Your task to perform on an android device: turn on javascript in the chrome app Image 0: 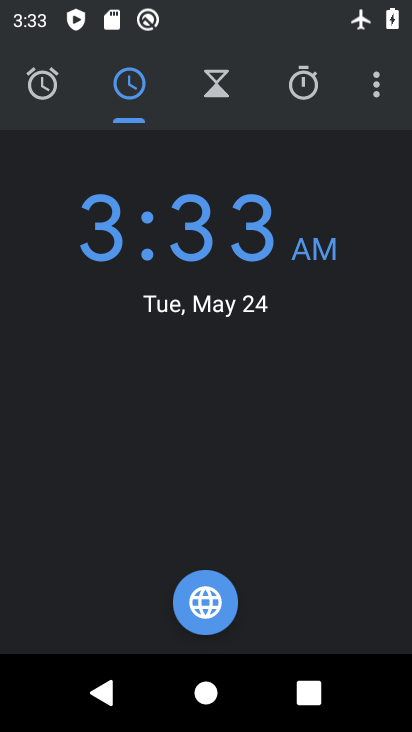
Step 0: press home button
Your task to perform on an android device: turn on javascript in the chrome app Image 1: 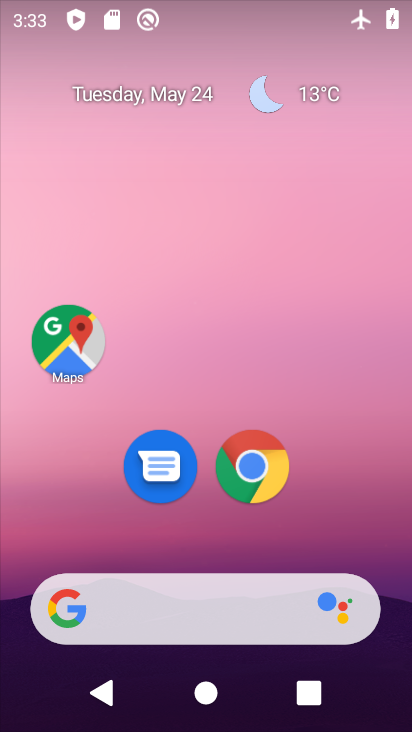
Step 1: click (256, 460)
Your task to perform on an android device: turn on javascript in the chrome app Image 2: 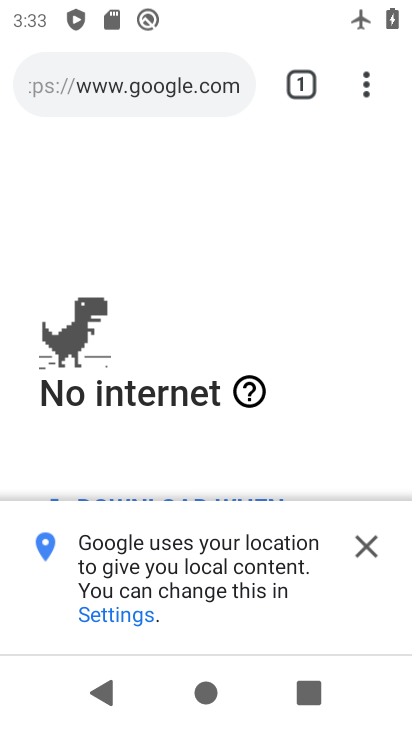
Step 2: click (364, 91)
Your task to perform on an android device: turn on javascript in the chrome app Image 3: 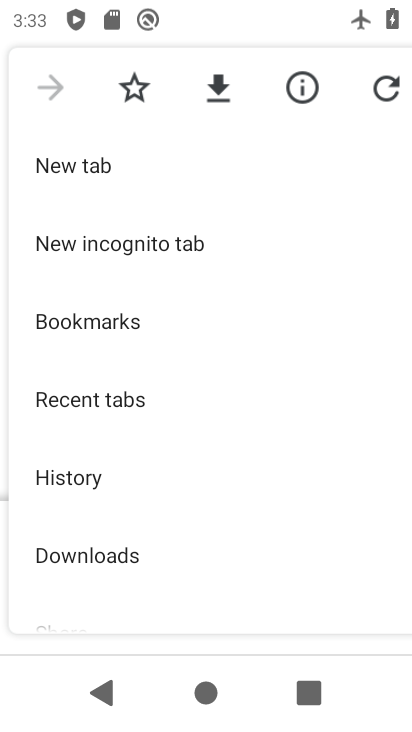
Step 3: drag from (220, 503) to (227, 43)
Your task to perform on an android device: turn on javascript in the chrome app Image 4: 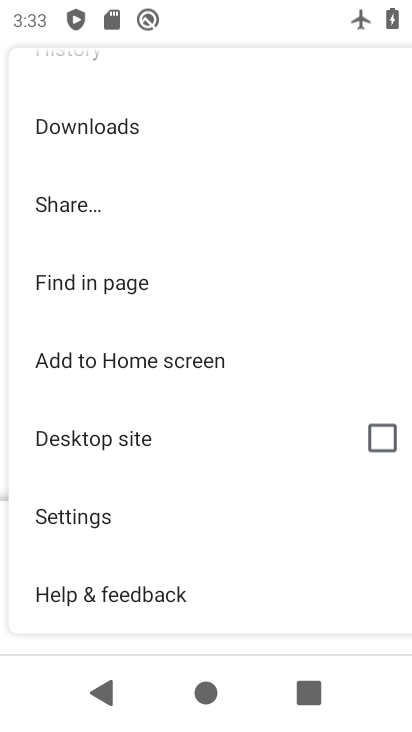
Step 4: click (127, 524)
Your task to perform on an android device: turn on javascript in the chrome app Image 5: 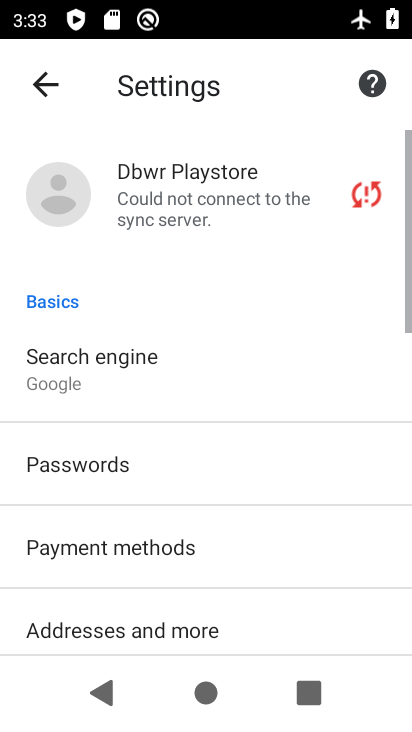
Step 5: drag from (226, 603) to (246, 199)
Your task to perform on an android device: turn on javascript in the chrome app Image 6: 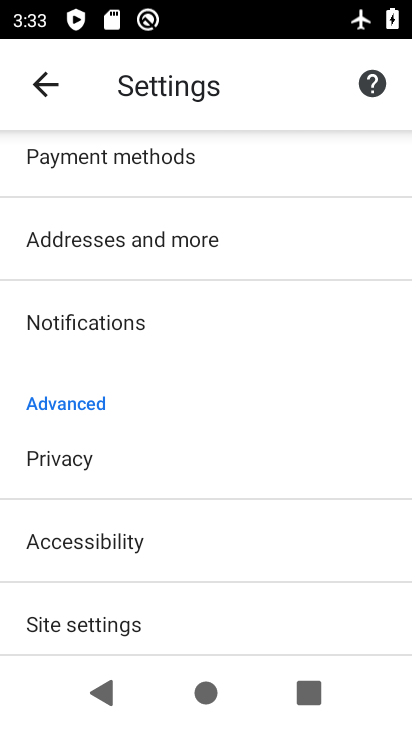
Step 6: click (125, 626)
Your task to perform on an android device: turn on javascript in the chrome app Image 7: 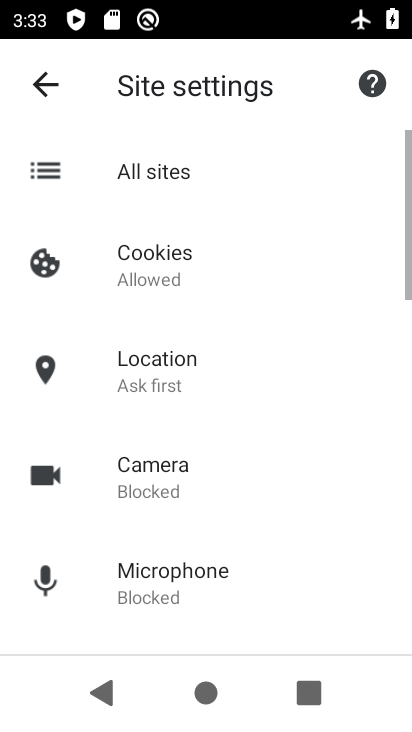
Step 7: drag from (170, 559) to (222, 283)
Your task to perform on an android device: turn on javascript in the chrome app Image 8: 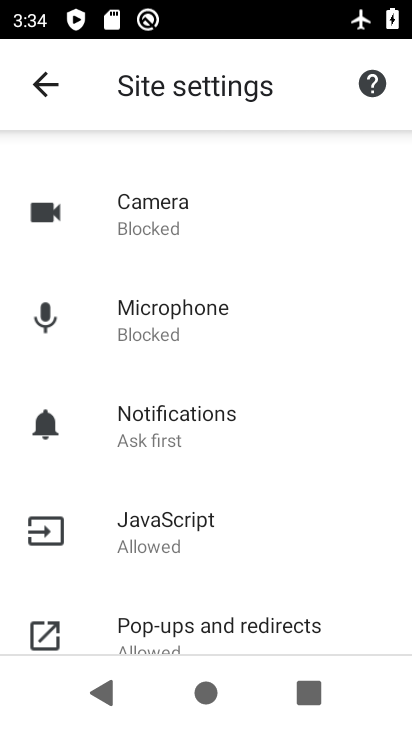
Step 8: click (165, 562)
Your task to perform on an android device: turn on javascript in the chrome app Image 9: 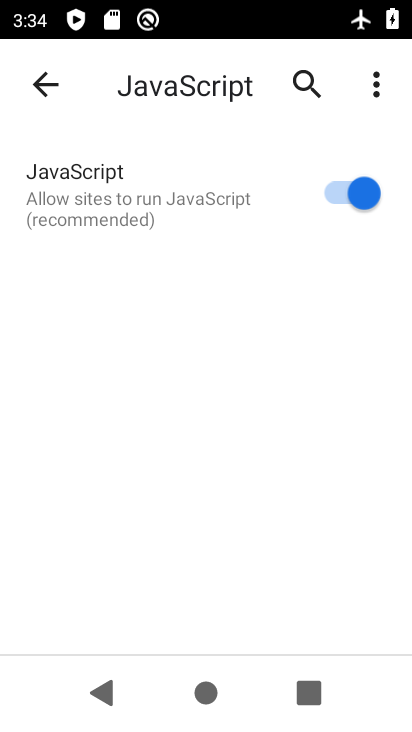
Step 9: task complete